Your task to perform on an android device: When is my next appointment? Image 0: 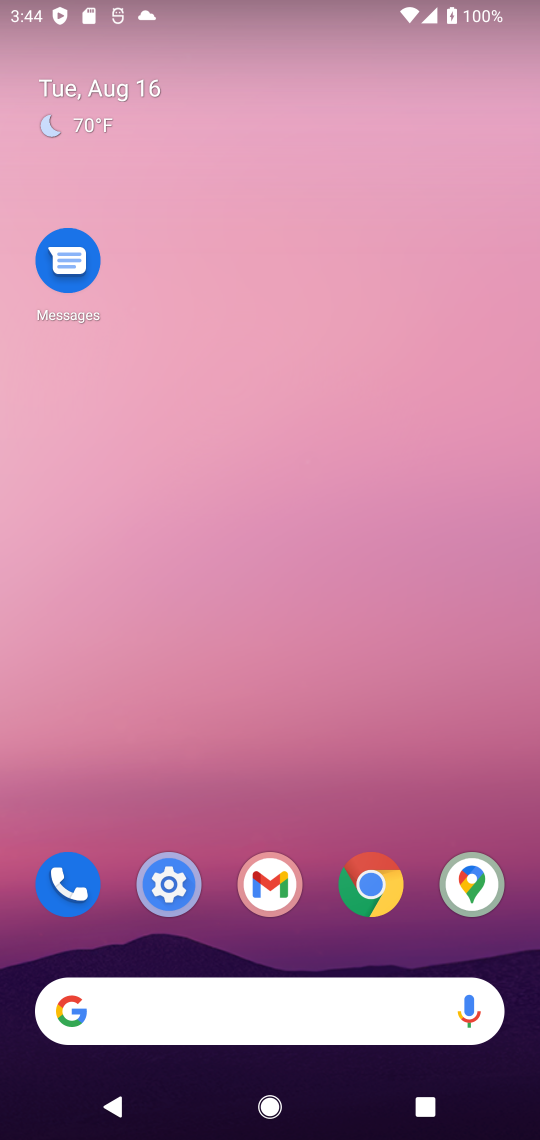
Step 0: drag from (36, 1089) to (234, 455)
Your task to perform on an android device: When is my next appointment? Image 1: 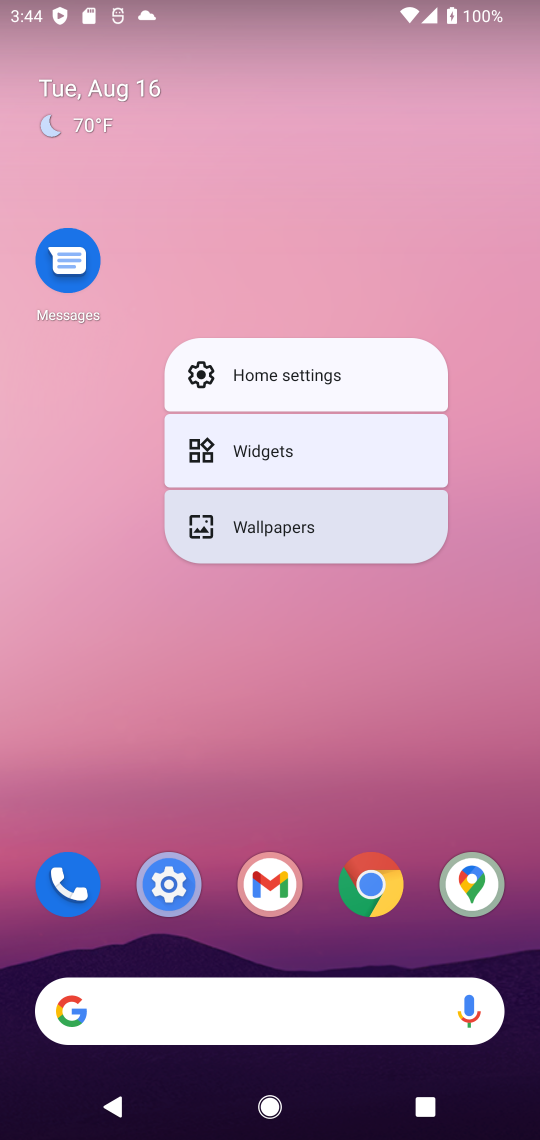
Step 1: click (61, 1083)
Your task to perform on an android device: When is my next appointment? Image 2: 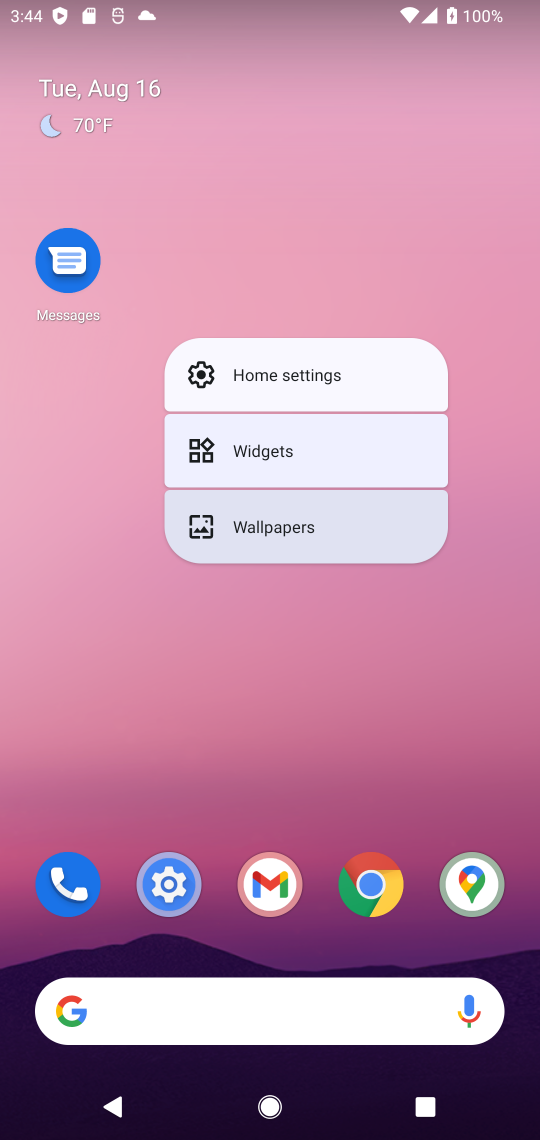
Step 2: task complete